Your task to perform on an android device: turn on location history Image 0: 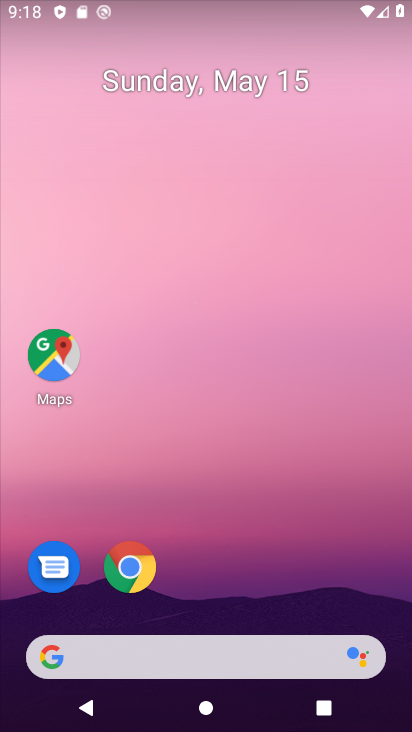
Step 0: drag from (315, 610) to (297, 76)
Your task to perform on an android device: turn on location history Image 1: 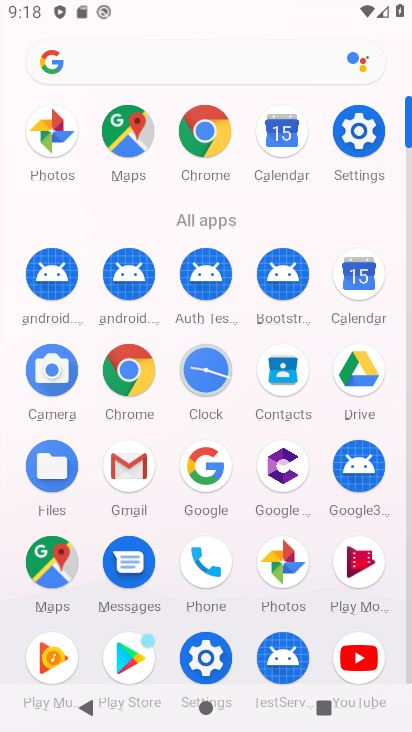
Step 1: click (214, 661)
Your task to perform on an android device: turn on location history Image 2: 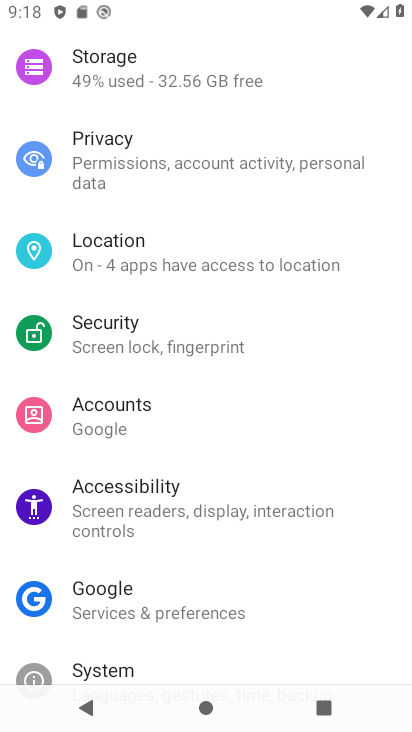
Step 2: click (235, 250)
Your task to perform on an android device: turn on location history Image 3: 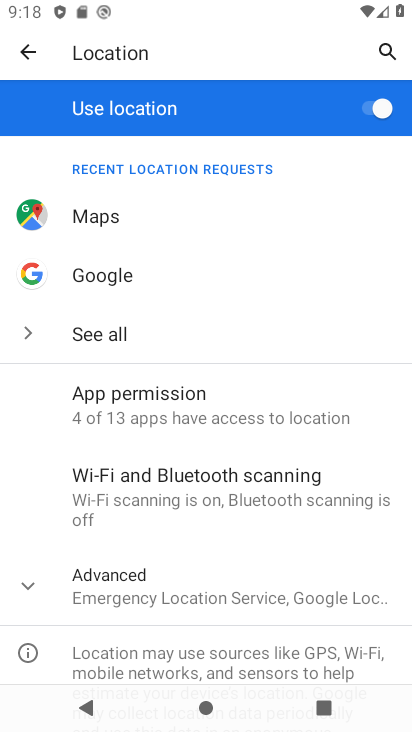
Step 3: click (188, 580)
Your task to perform on an android device: turn on location history Image 4: 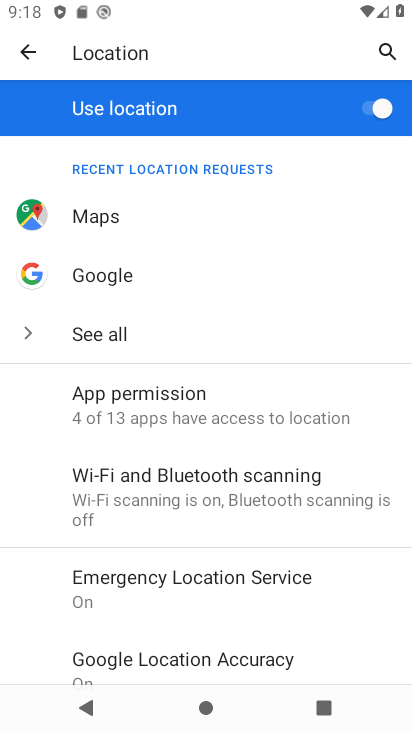
Step 4: drag from (235, 630) to (194, 165)
Your task to perform on an android device: turn on location history Image 5: 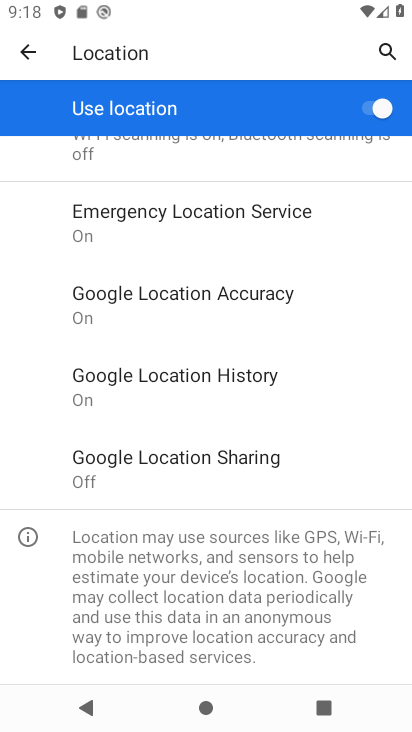
Step 5: click (226, 382)
Your task to perform on an android device: turn on location history Image 6: 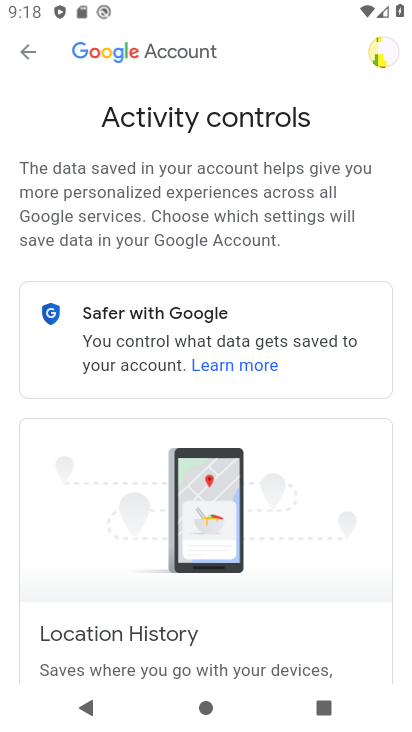
Step 6: task complete